Your task to perform on an android device: Go to notification settings Image 0: 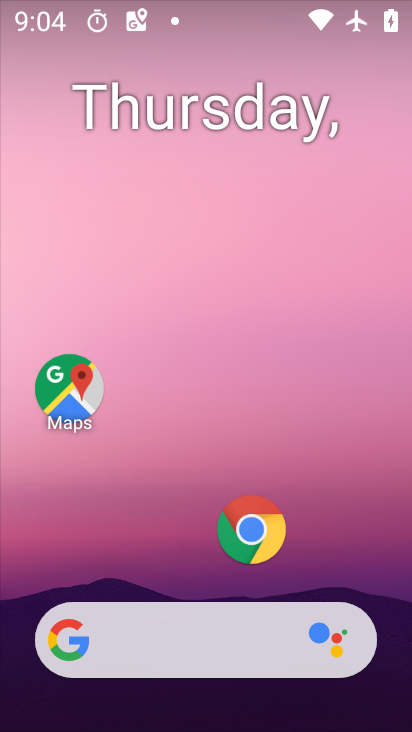
Step 0: drag from (208, 566) to (235, 46)
Your task to perform on an android device: Go to notification settings Image 1: 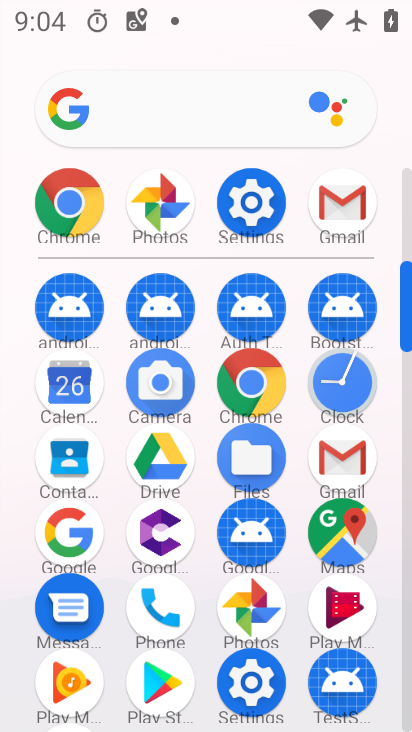
Step 1: click (245, 194)
Your task to perform on an android device: Go to notification settings Image 2: 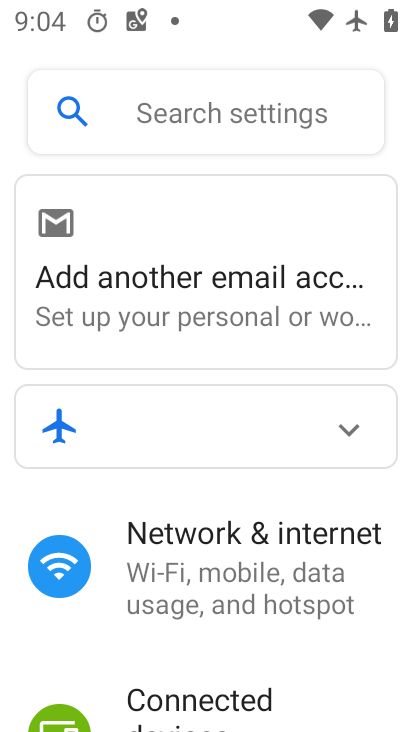
Step 2: drag from (233, 632) to (277, 189)
Your task to perform on an android device: Go to notification settings Image 3: 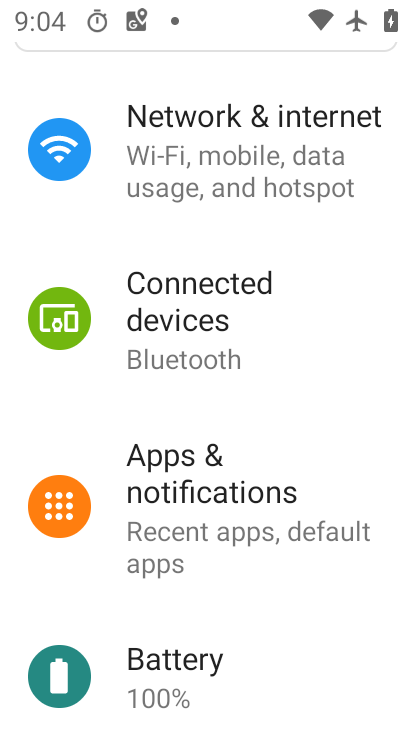
Step 3: click (235, 464)
Your task to perform on an android device: Go to notification settings Image 4: 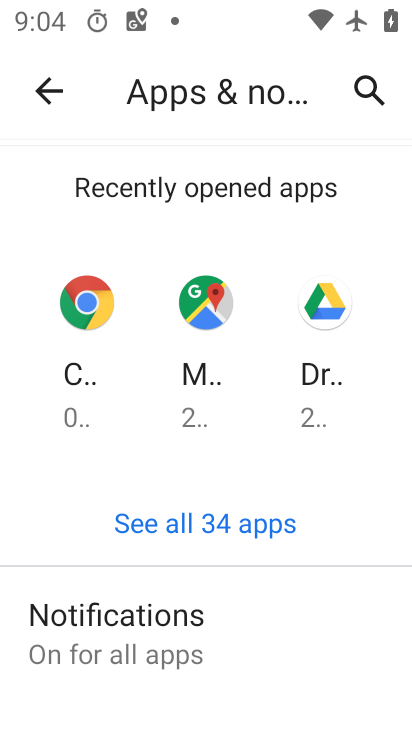
Step 4: click (214, 635)
Your task to perform on an android device: Go to notification settings Image 5: 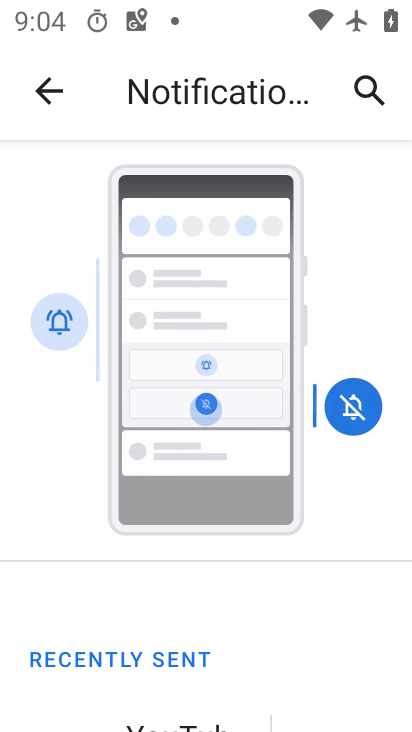
Step 5: drag from (268, 658) to (311, 279)
Your task to perform on an android device: Go to notification settings Image 6: 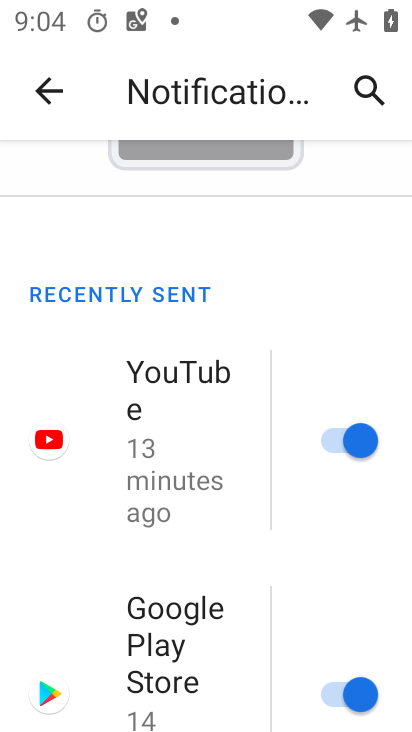
Step 6: drag from (218, 631) to (258, 273)
Your task to perform on an android device: Go to notification settings Image 7: 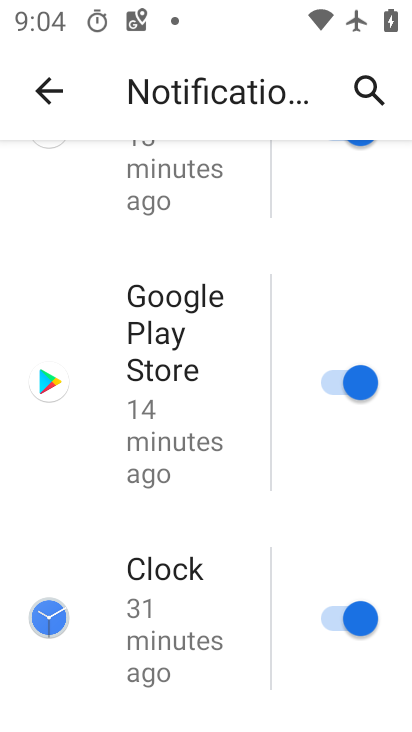
Step 7: drag from (229, 617) to (247, 291)
Your task to perform on an android device: Go to notification settings Image 8: 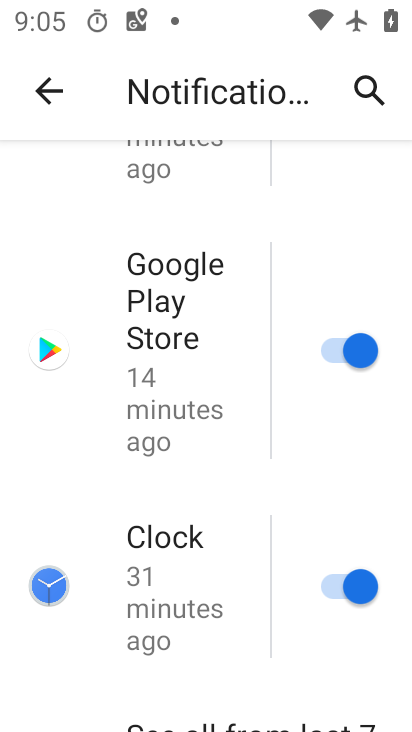
Step 8: drag from (214, 596) to (228, 259)
Your task to perform on an android device: Go to notification settings Image 9: 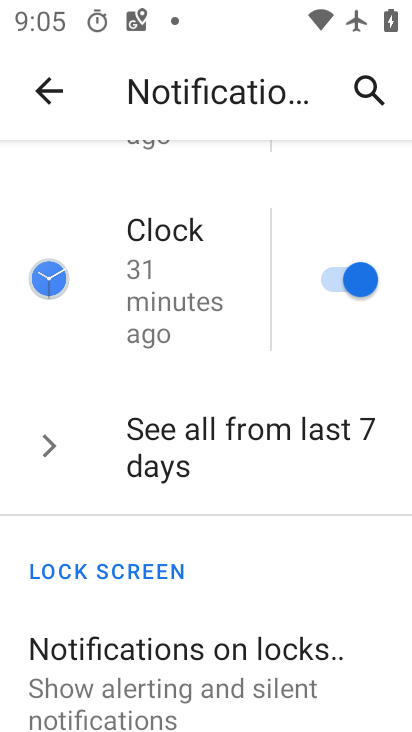
Step 9: drag from (221, 643) to (221, 382)
Your task to perform on an android device: Go to notification settings Image 10: 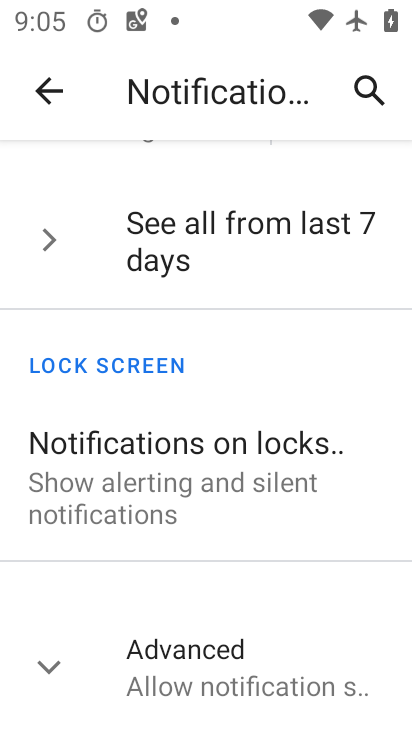
Step 10: click (44, 661)
Your task to perform on an android device: Go to notification settings Image 11: 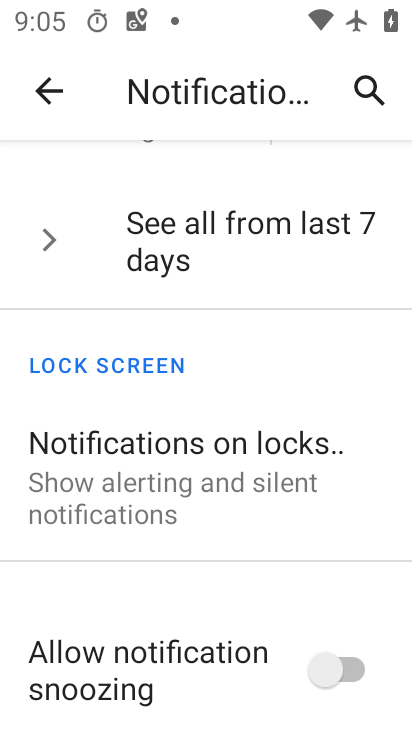
Step 11: task complete